Your task to perform on an android device: Look up the best rated kitchen knives on Amazon. Image 0: 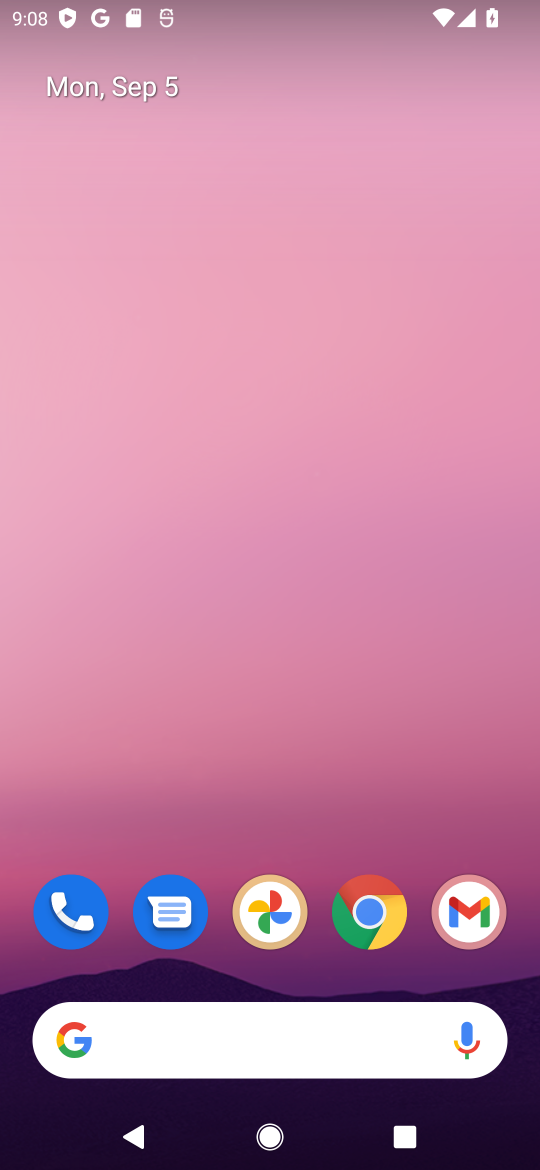
Step 0: click (369, 915)
Your task to perform on an android device: Look up the best rated kitchen knives on Amazon. Image 1: 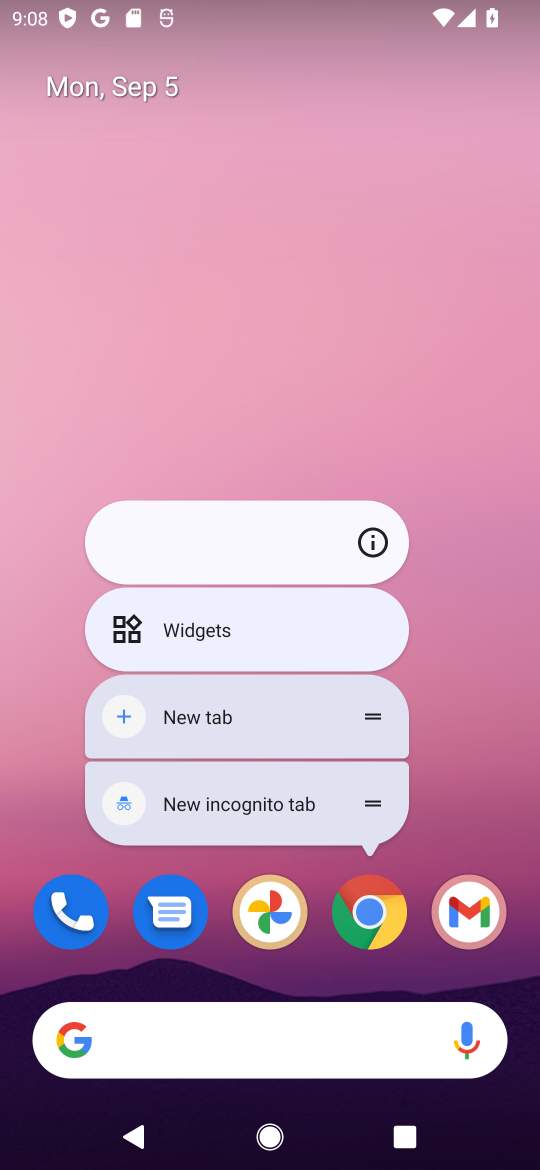
Step 1: click (384, 931)
Your task to perform on an android device: Look up the best rated kitchen knives on Amazon. Image 2: 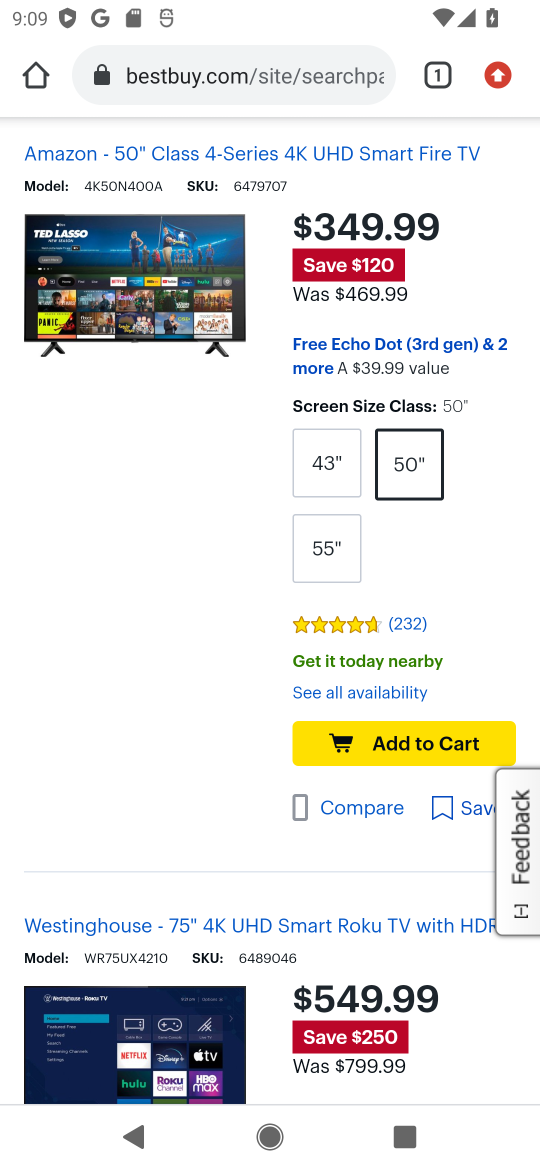
Step 2: click (354, 72)
Your task to perform on an android device: Look up the best rated kitchen knives on Amazon. Image 3: 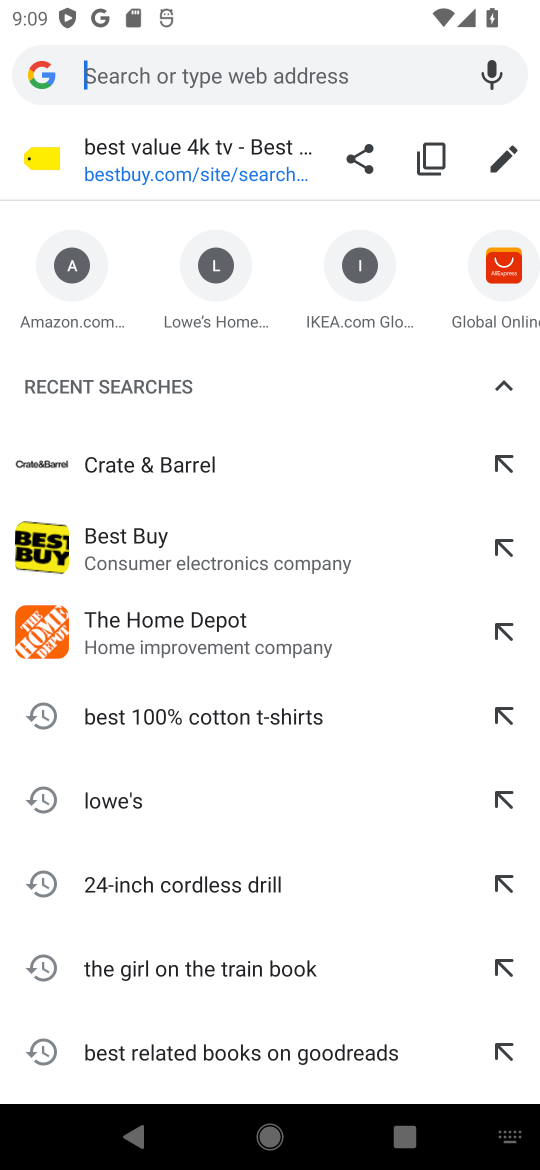
Step 3: type "amazon"
Your task to perform on an android device: Look up the best rated kitchen knives on Amazon. Image 4: 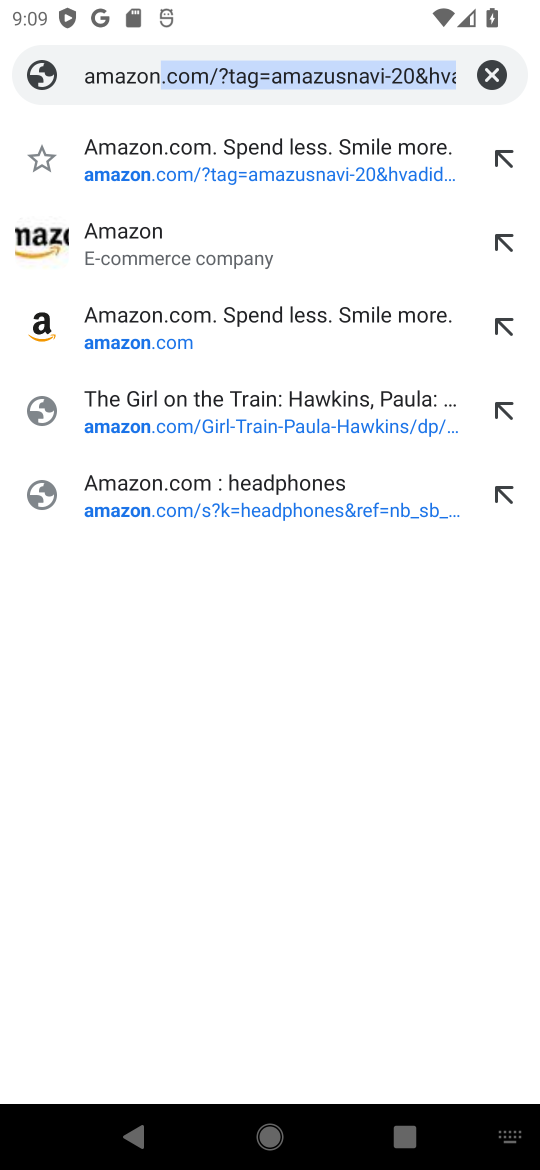
Step 4: click (220, 218)
Your task to perform on an android device: Look up the best rated kitchen knives on Amazon. Image 5: 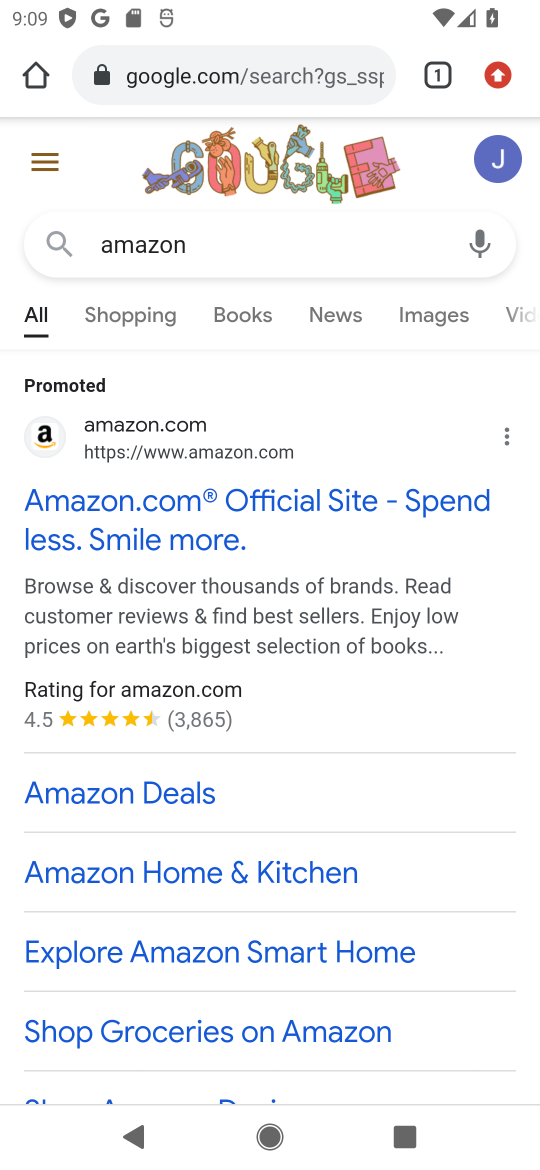
Step 5: click (162, 502)
Your task to perform on an android device: Look up the best rated kitchen knives on Amazon. Image 6: 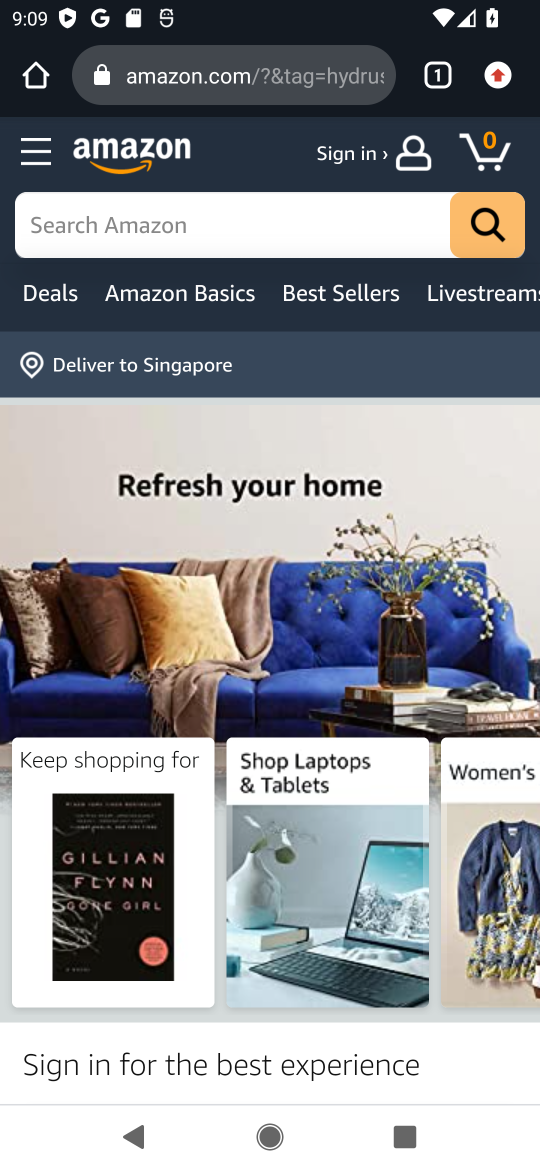
Step 6: click (102, 215)
Your task to perform on an android device: Look up the best rated kitchen knives on Amazon. Image 7: 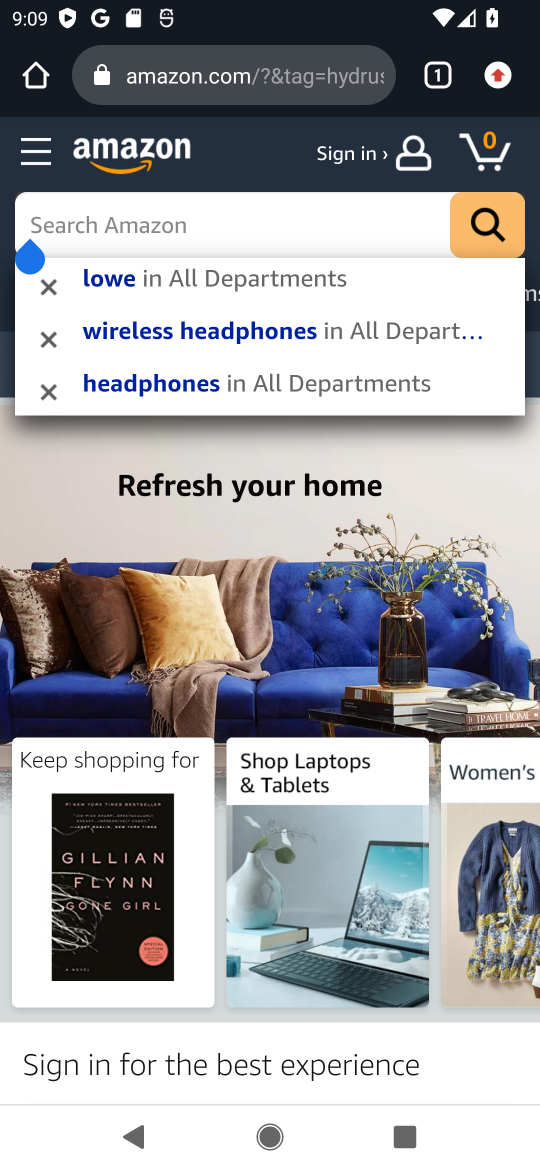
Step 7: type "kitchen knives"
Your task to perform on an android device: Look up the best rated kitchen knives on Amazon. Image 8: 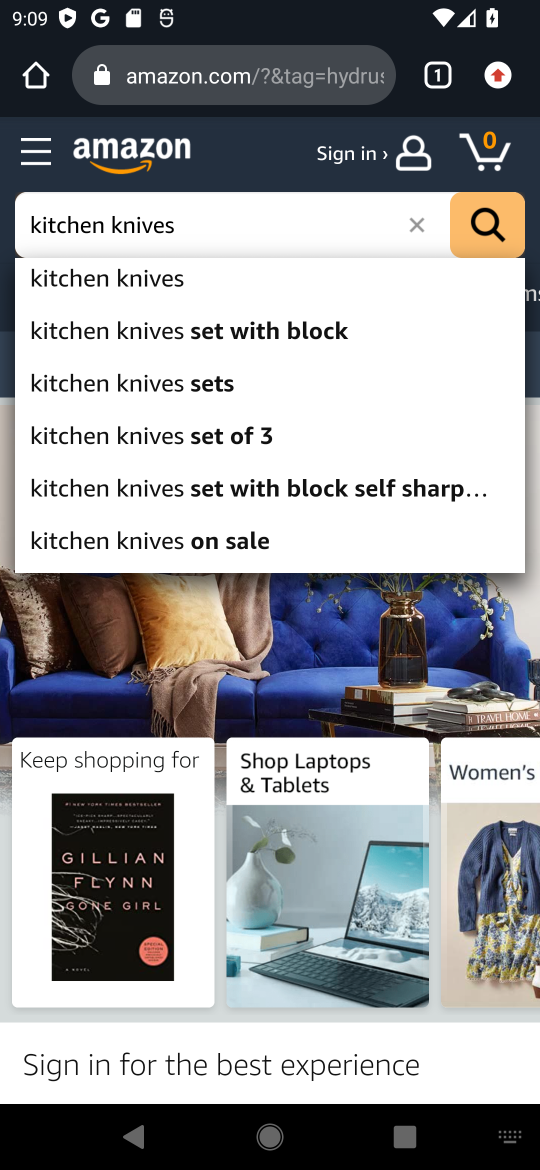
Step 8: press enter
Your task to perform on an android device: Look up the best rated kitchen knives on Amazon. Image 9: 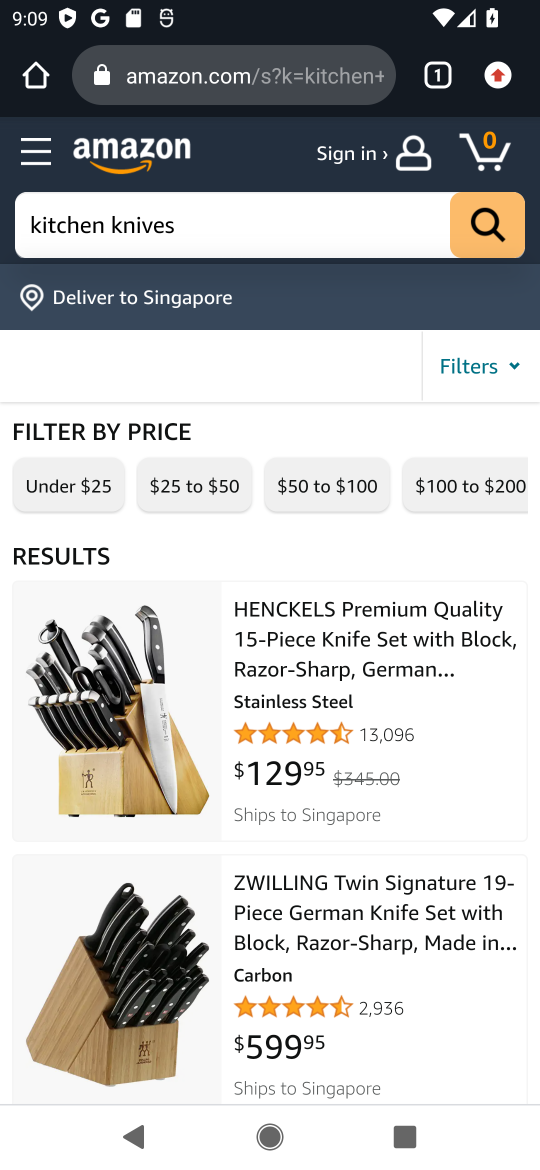
Step 9: click (490, 374)
Your task to perform on an android device: Look up the best rated kitchen knives on Amazon. Image 10: 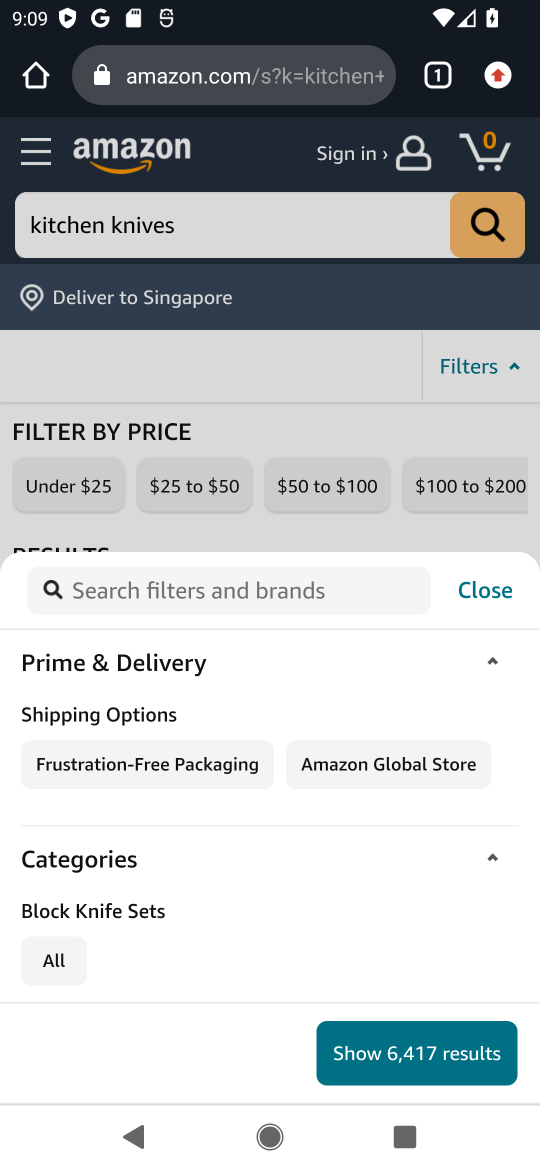
Step 10: drag from (354, 842) to (379, 376)
Your task to perform on an android device: Look up the best rated kitchen knives on Amazon. Image 11: 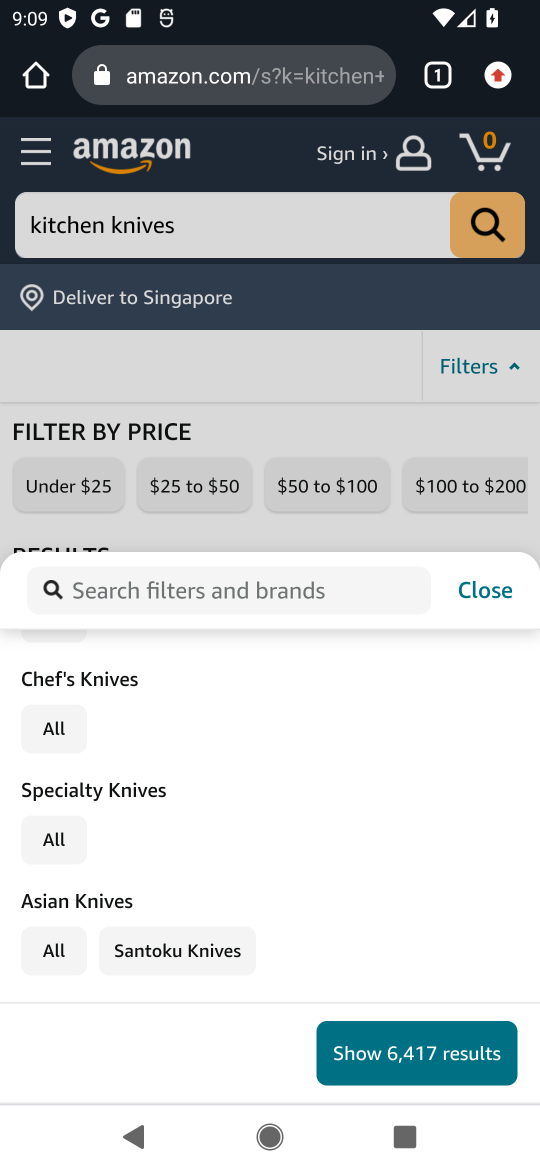
Step 11: drag from (373, 857) to (369, 495)
Your task to perform on an android device: Look up the best rated kitchen knives on Amazon. Image 12: 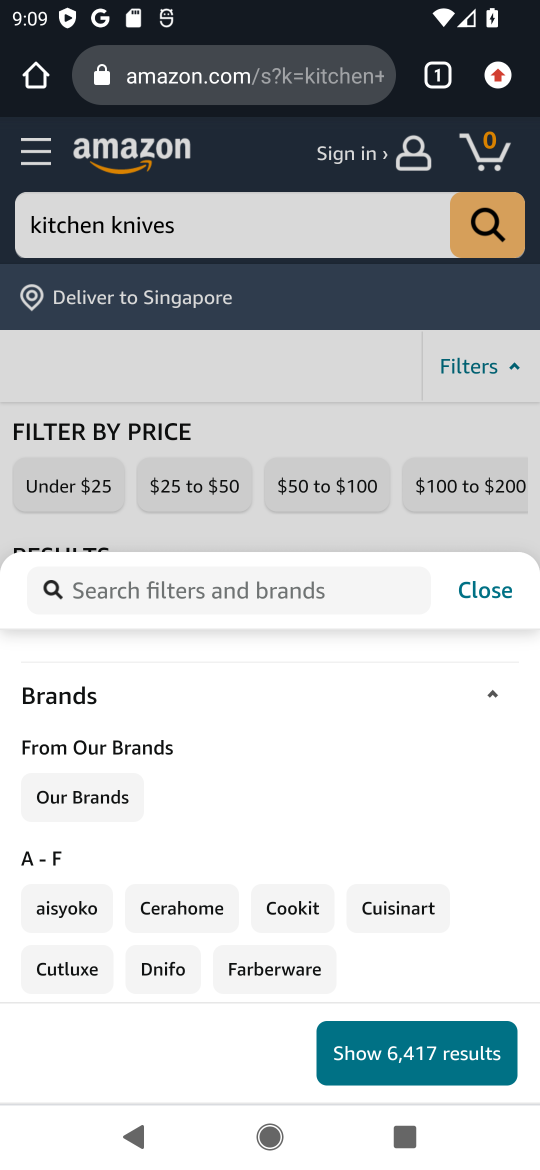
Step 12: drag from (364, 795) to (348, 549)
Your task to perform on an android device: Look up the best rated kitchen knives on Amazon. Image 13: 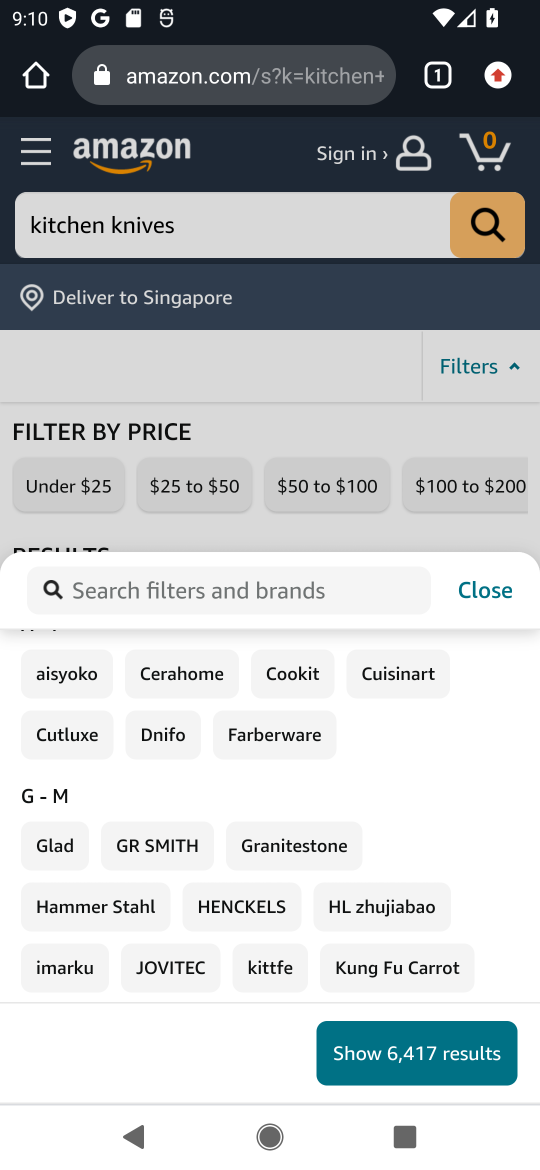
Step 13: drag from (443, 813) to (442, 650)
Your task to perform on an android device: Look up the best rated kitchen knives on Amazon. Image 14: 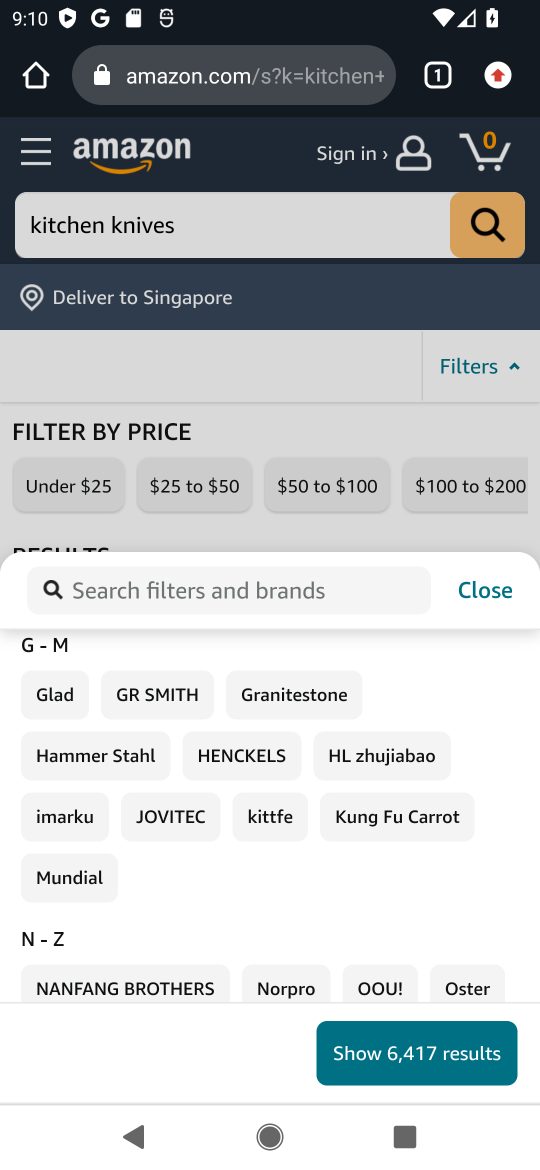
Step 14: drag from (344, 911) to (382, 636)
Your task to perform on an android device: Look up the best rated kitchen knives on Amazon. Image 15: 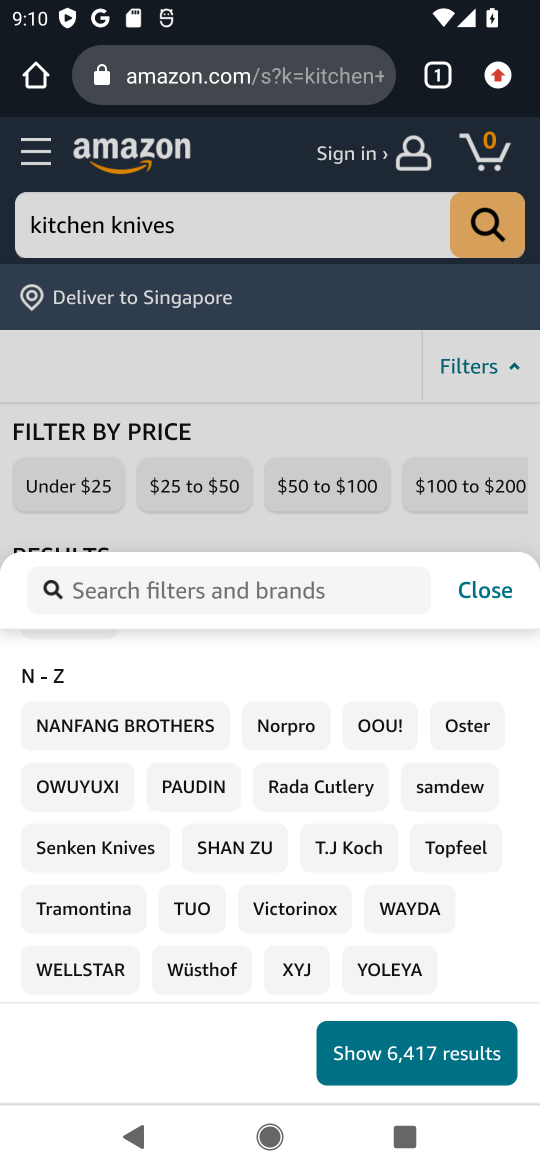
Step 15: drag from (349, 881) to (371, 596)
Your task to perform on an android device: Look up the best rated kitchen knives on Amazon. Image 16: 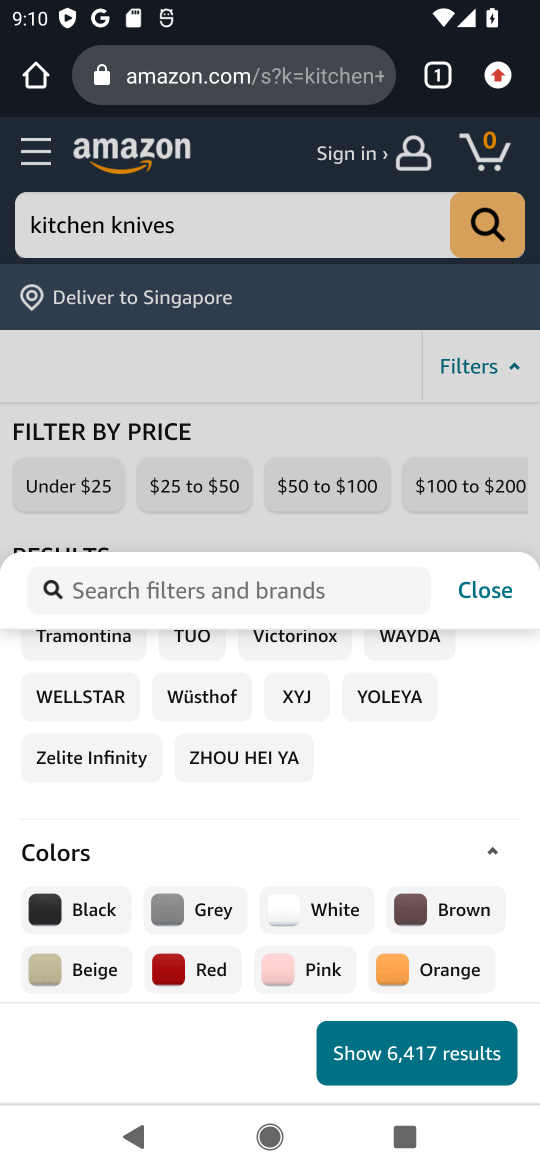
Step 16: drag from (369, 793) to (343, 628)
Your task to perform on an android device: Look up the best rated kitchen knives on Amazon. Image 17: 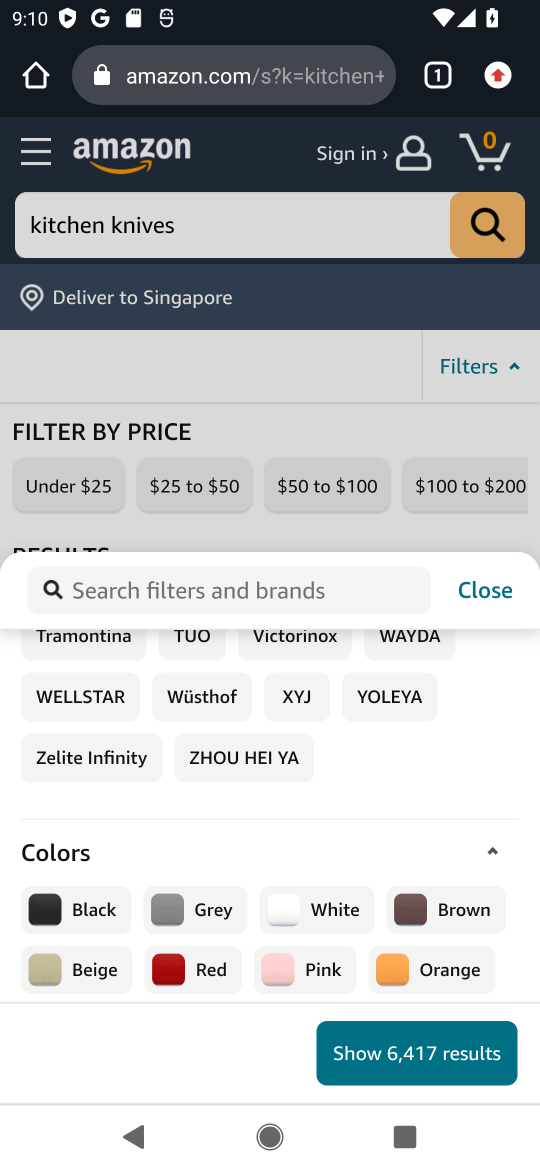
Step 17: drag from (370, 796) to (346, 658)
Your task to perform on an android device: Look up the best rated kitchen knives on Amazon. Image 18: 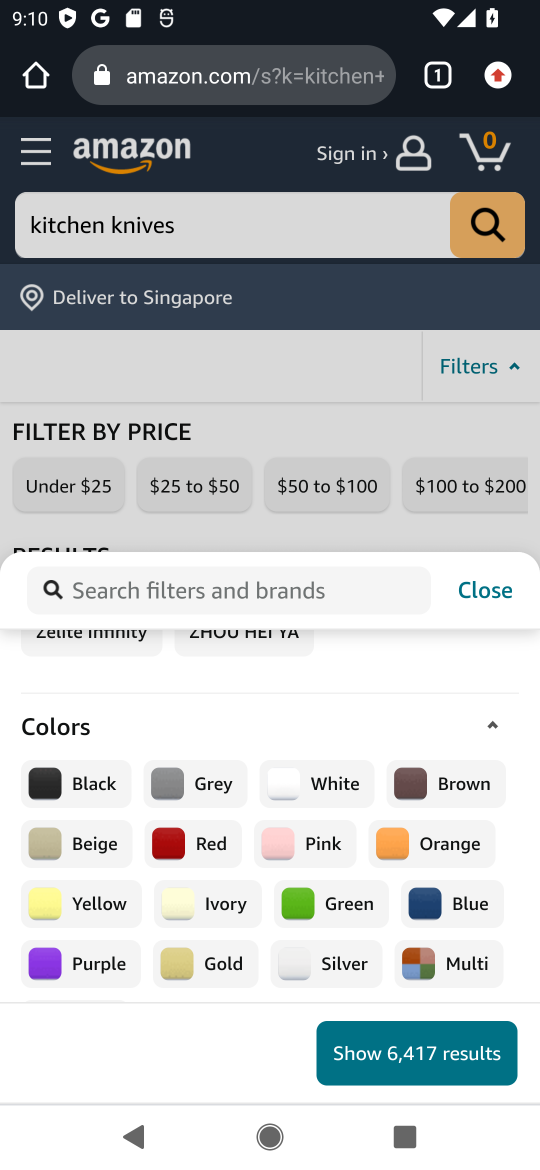
Step 18: drag from (197, 914) to (233, 550)
Your task to perform on an android device: Look up the best rated kitchen knives on Amazon. Image 19: 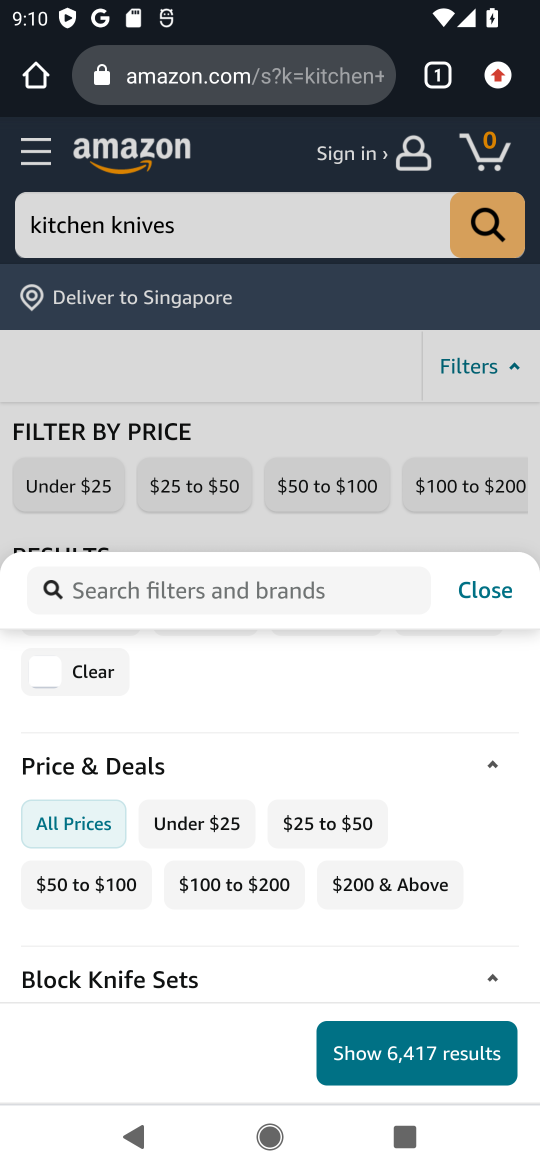
Step 19: drag from (287, 931) to (295, 618)
Your task to perform on an android device: Look up the best rated kitchen knives on Amazon. Image 20: 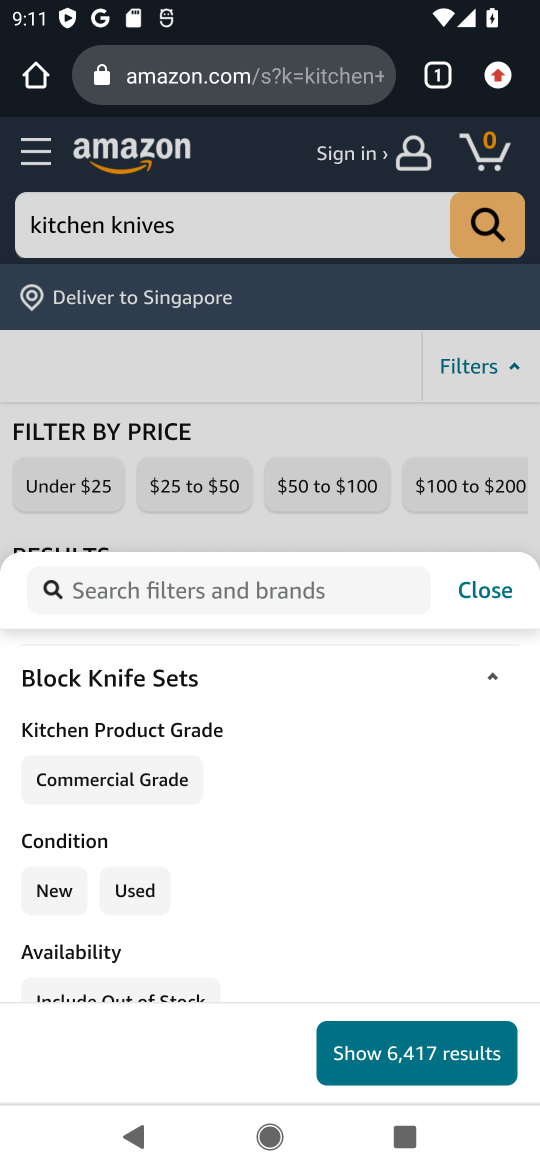
Step 20: drag from (294, 855) to (311, 617)
Your task to perform on an android device: Look up the best rated kitchen knives on Amazon. Image 21: 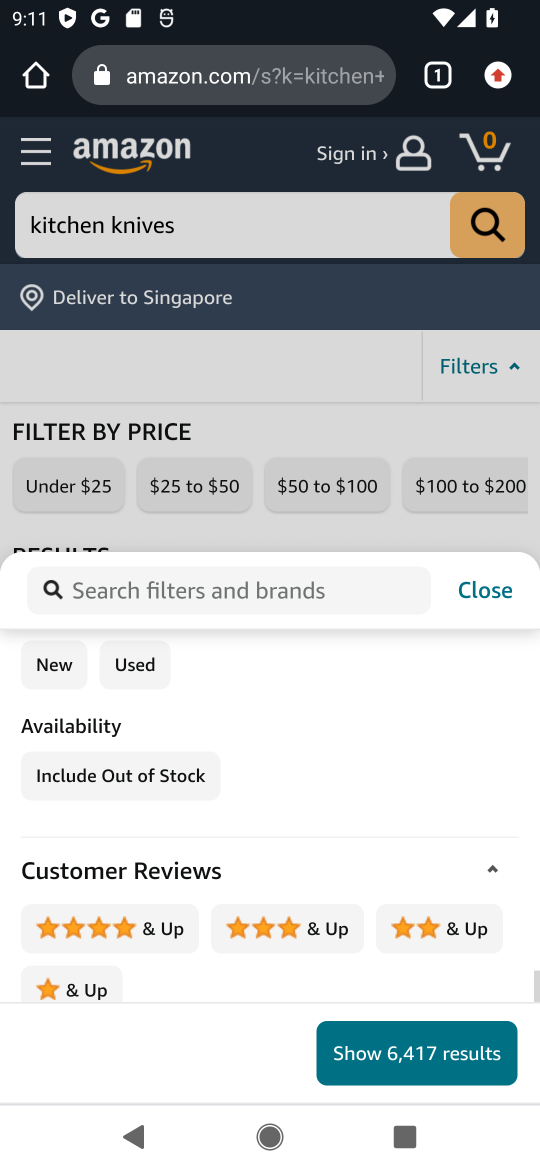
Step 21: drag from (299, 948) to (308, 785)
Your task to perform on an android device: Look up the best rated kitchen knives on Amazon. Image 22: 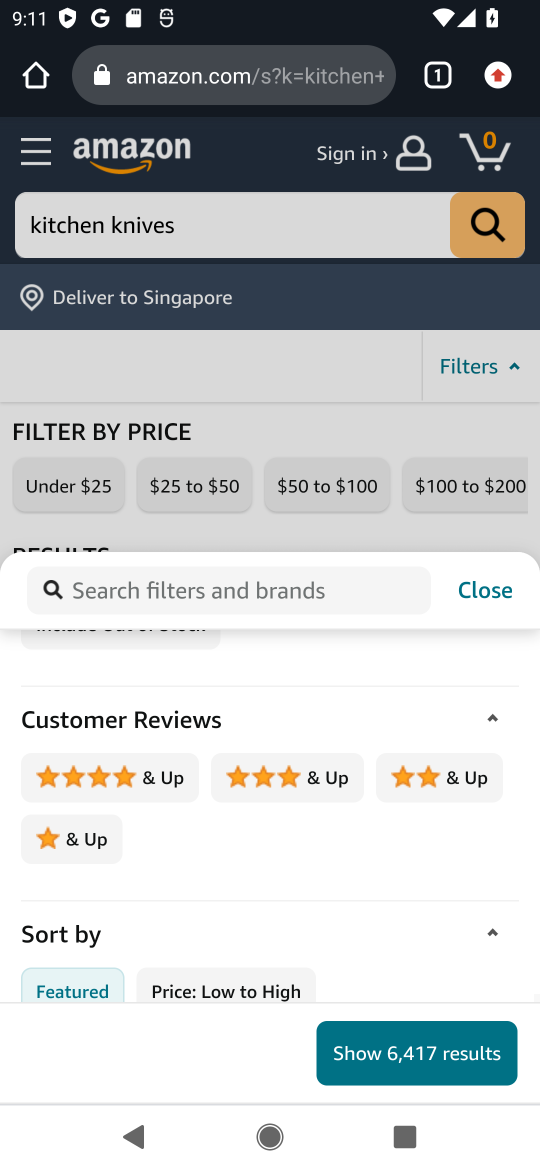
Step 22: click (145, 770)
Your task to perform on an android device: Look up the best rated kitchen knives on Amazon. Image 23: 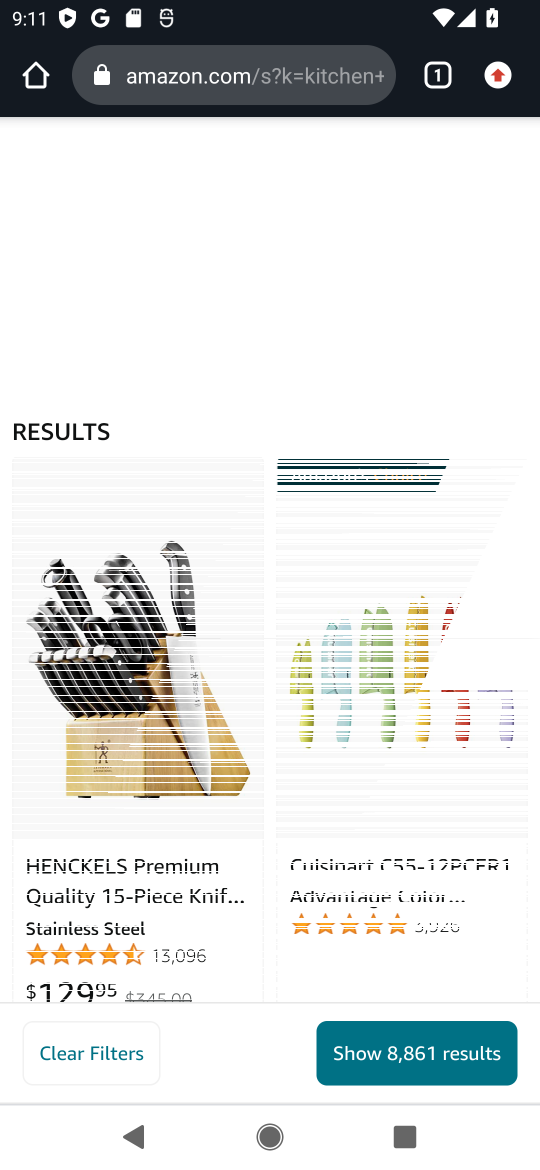
Step 23: click (413, 1031)
Your task to perform on an android device: Look up the best rated kitchen knives on Amazon. Image 24: 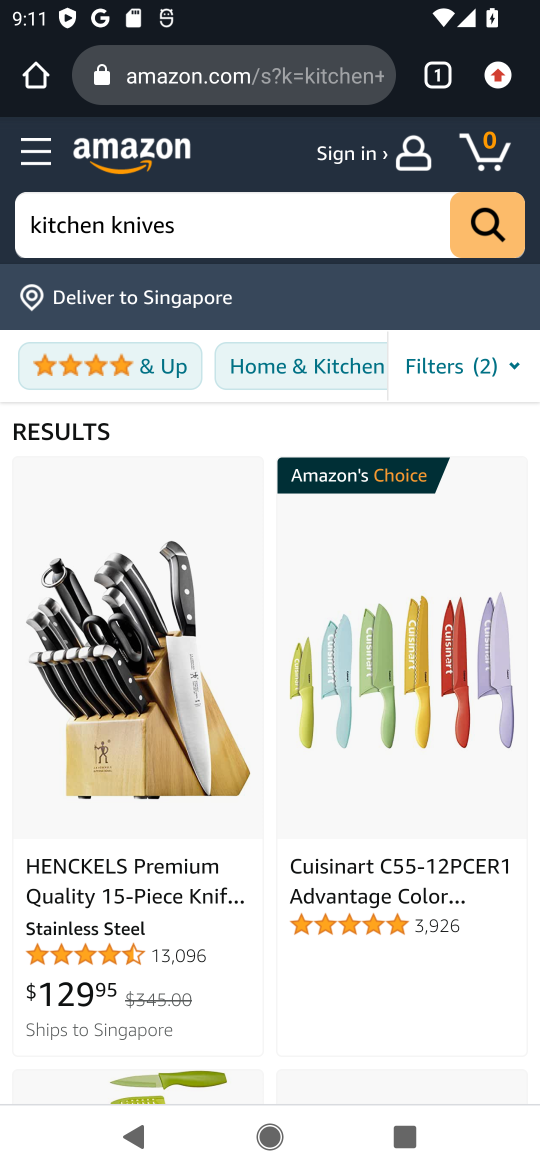
Step 24: drag from (411, 1028) to (401, 571)
Your task to perform on an android device: Look up the best rated kitchen knives on Amazon. Image 25: 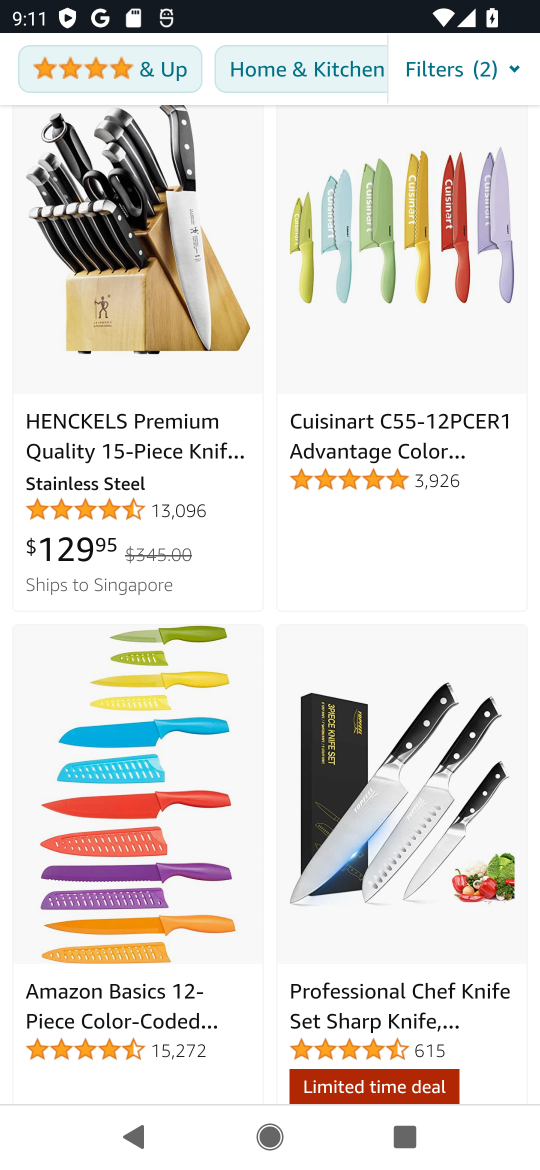
Step 25: click (191, 460)
Your task to perform on an android device: Look up the best rated kitchen knives on Amazon. Image 26: 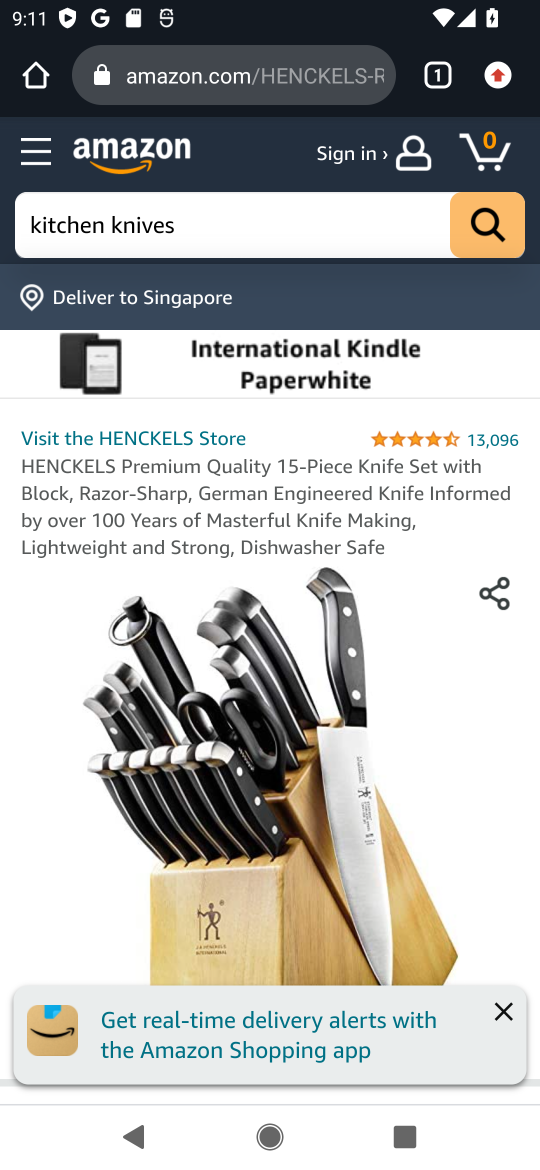
Step 26: task complete